Your task to perform on an android device: Open Maps and search for coffee Image 0: 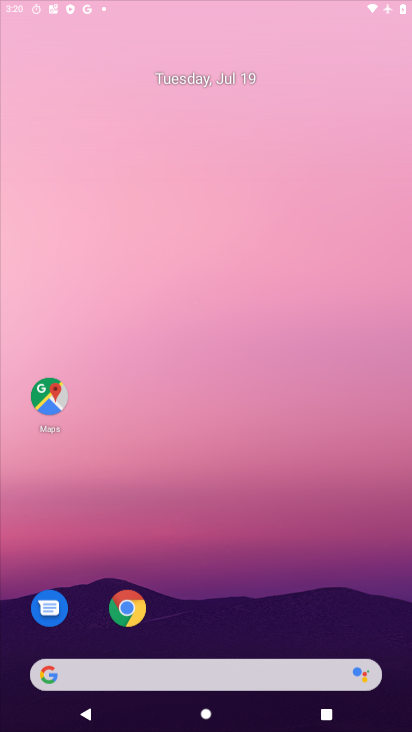
Step 0: drag from (225, 619) to (270, 126)
Your task to perform on an android device: Open Maps and search for coffee Image 1: 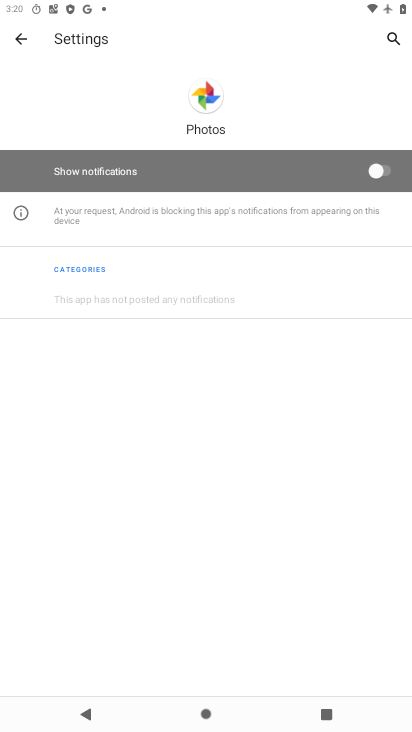
Step 1: press home button
Your task to perform on an android device: Open Maps and search for coffee Image 2: 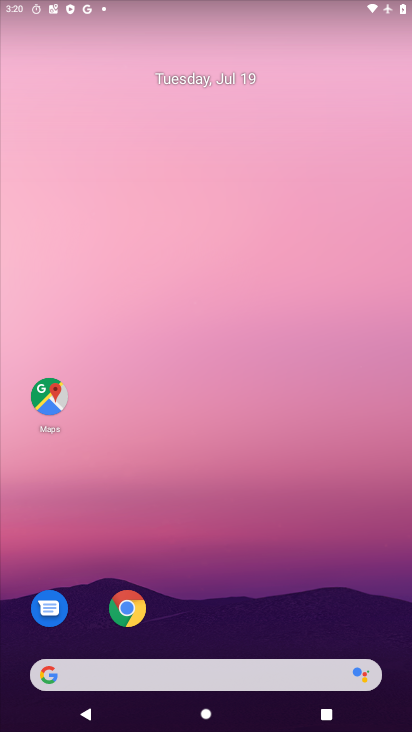
Step 2: click (273, 208)
Your task to perform on an android device: Open Maps and search for coffee Image 3: 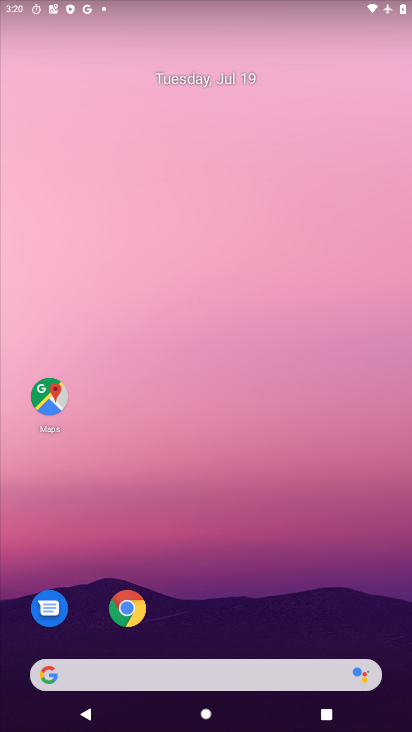
Step 3: drag from (251, 391) to (262, 166)
Your task to perform on an android device: Open Maps and search for coffee Image 4: 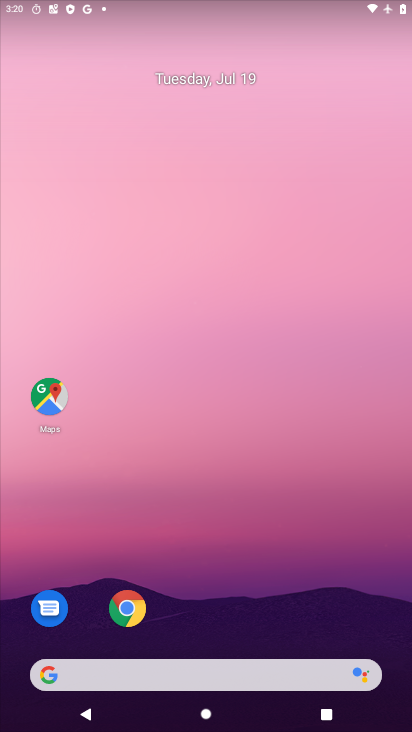
Step 4: drag from (243, 602) to (216, 98)
Your task to perform on an android device: Open Maps and search for coffee Image 5: 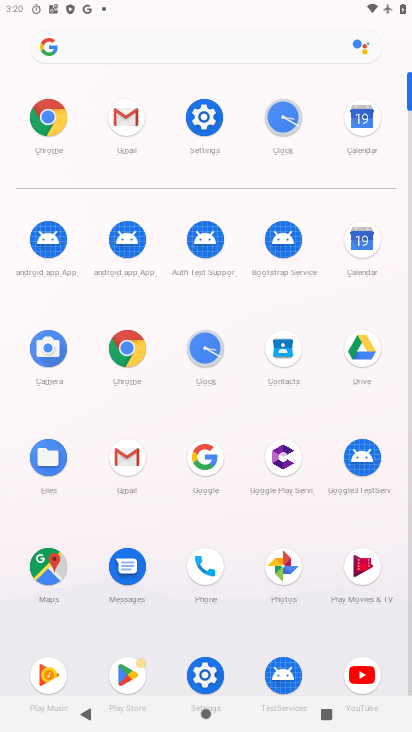
Step 5: click (45, 564)
Your task to perform on an android device: Open Maps and search for coffee Image 6: 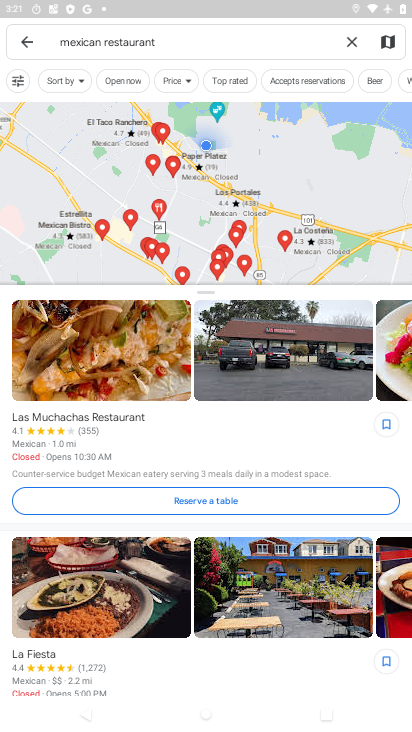
Step 6: click (351, 33)
Your task to perform on an android device: Open Maps and search for coffee Image 7: 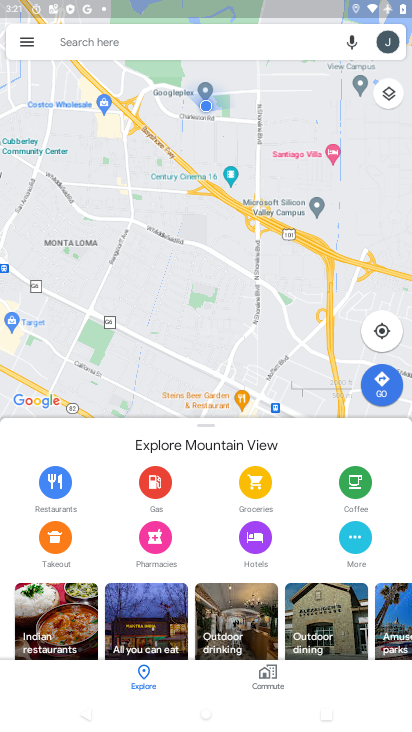
Step 7: click (246, 40)
Your task to perform on an android device: Open Maps and search for coffee Image 8: 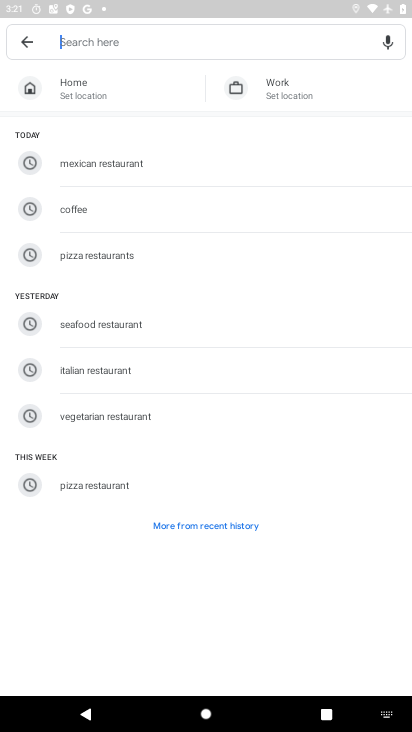
Step 8: type "coffee"
Your task to perform on an android device: Open Maps and search for coffee Image 9: 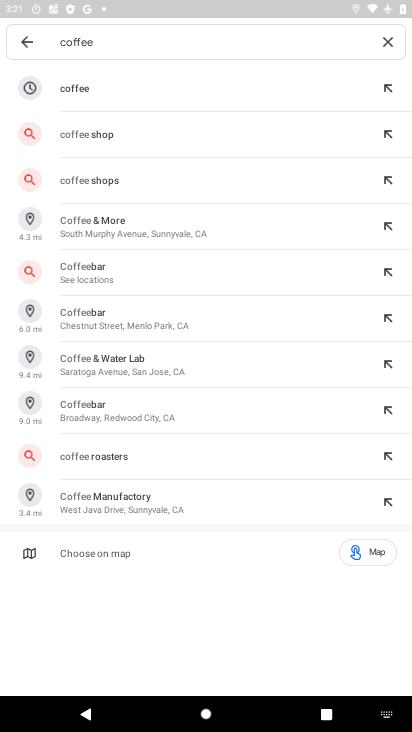
Step 9: click (63, 88)
Your task to perform on an android device: Open Maps and search for coffee Image 10: 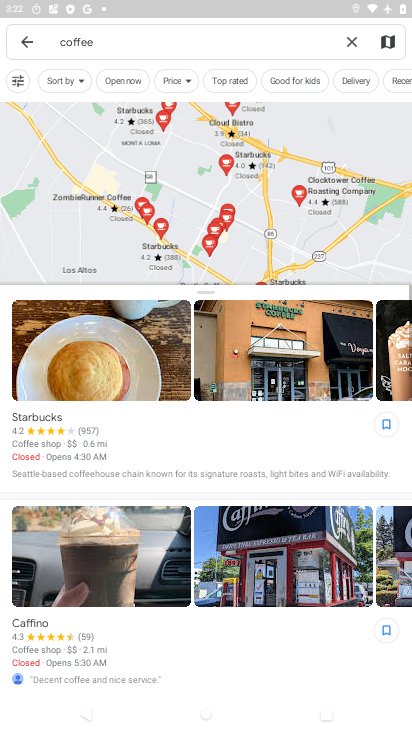
Step 10: task complete